Your task to perform on an android device: Check the weather Image 0: 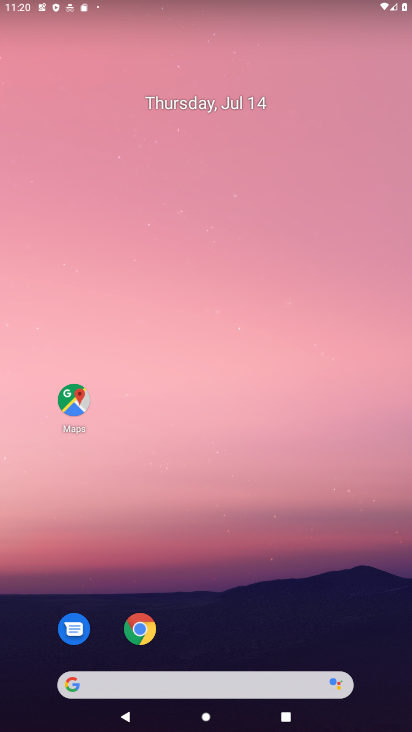
Step 0: press home button
Your task to perform on an android device: Check the weather Image 1: 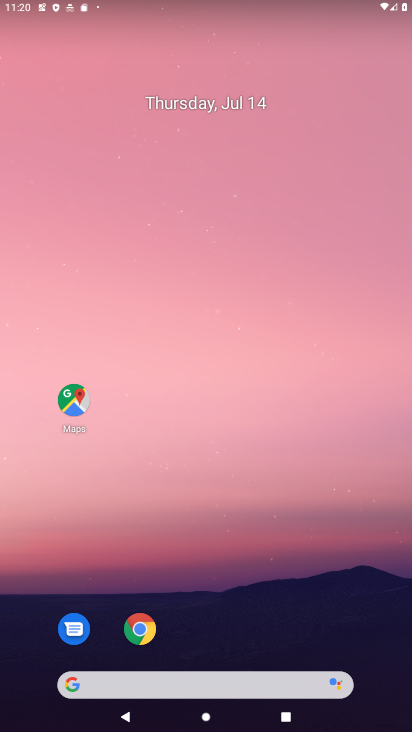
Step 1: click (56, 682)
Your task to perform on an android device: Check the weather Image 2: 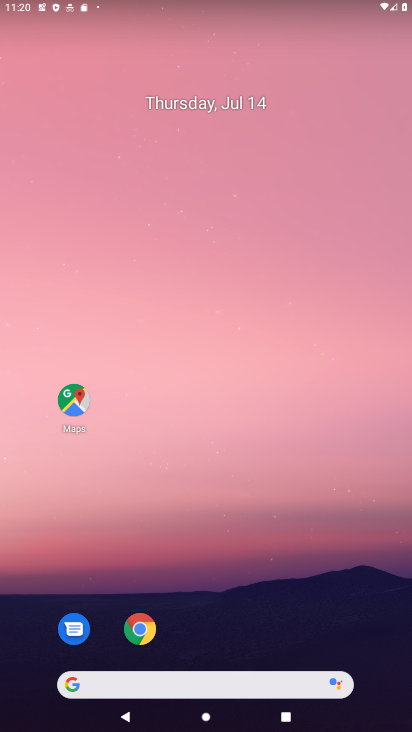
Step 2: click (64, 684)
Your task to perform on an android device: Check the weather Image 3: 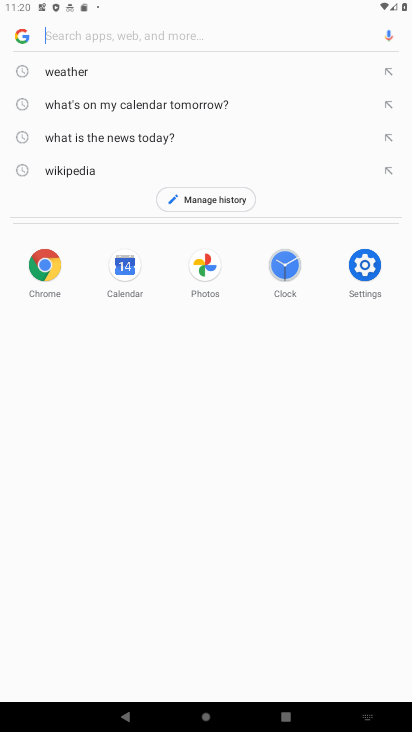
Step 3: click (56, 79)
Your task to perform on an android device: Check the weather Image 4: 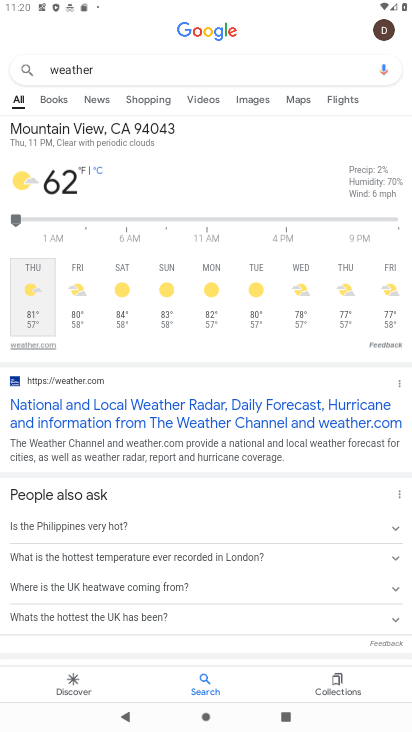
Step 4: task complete